Your task to perform on an android device: Open location settings Image 0: 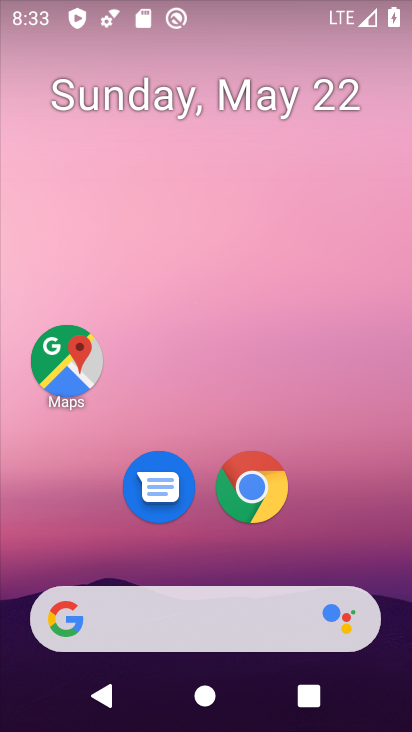
Step 0: drag from (349, 481) to (320, 11)
Your task to perform on an android device: Open location settings Image 1: 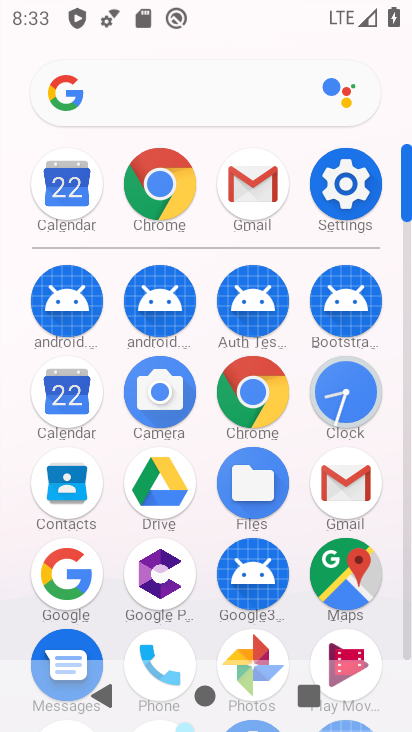
Step 1: click (344, 189)
Your task to perform on an android device: Open location settings Image 2: 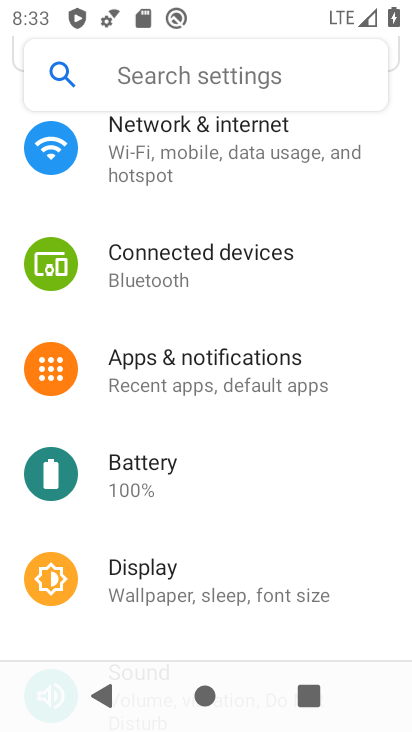
Step 2: drag from (222, 380) to (174, 39)
Your task to perform on an android device: Open location settings Image 3: 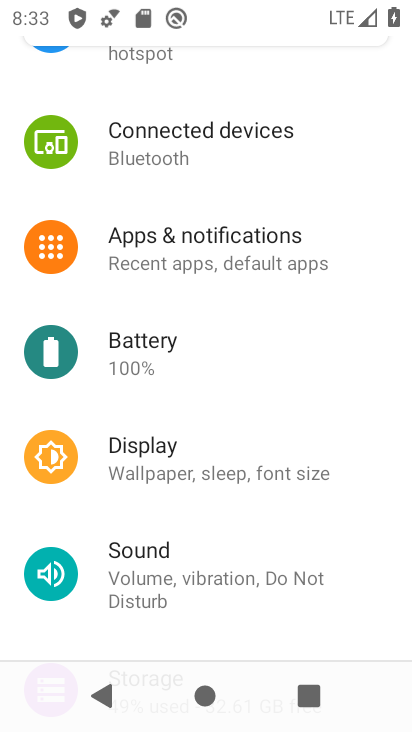
Step 3: drag from (217, 475) to (203, 199)
Your task to perform on an android device: Open location settings Image 4: 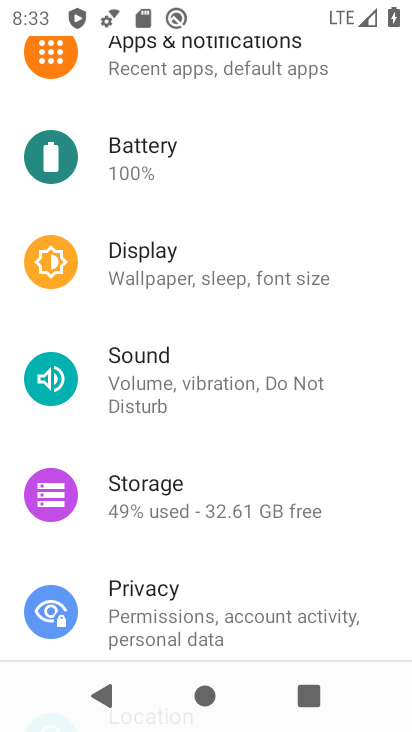
Step 4: drag from (247, 524) to (226, 73)
Your task to perform on an android device: Open location settings Image 5: 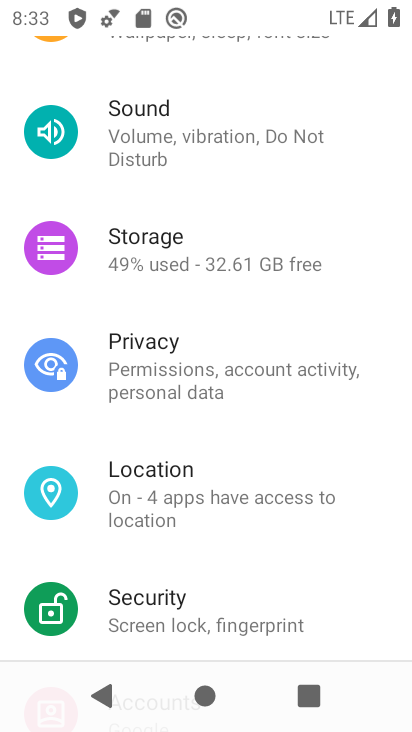
Step 5: click (184, 485)
Your task to perform on an android device: Open location settings Image 6: 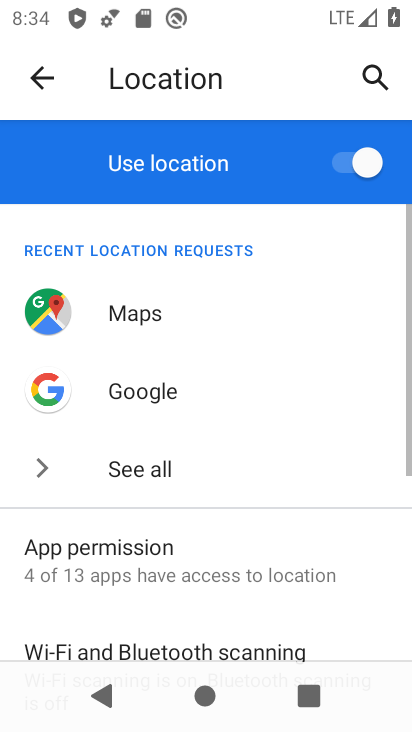
Step 6: task complete